Your task to perform on an android device: open chrome privacy settings Image 0: 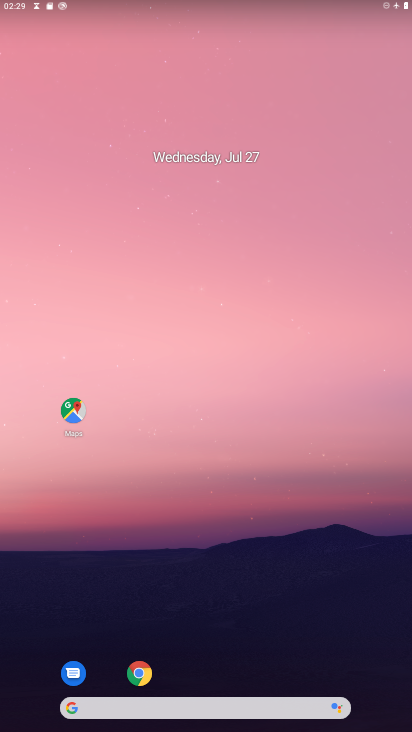
Step 0: drag from (213, 668) to (269, 149)
Your task to perform on an android device: open chrome privacy settings Image 1: 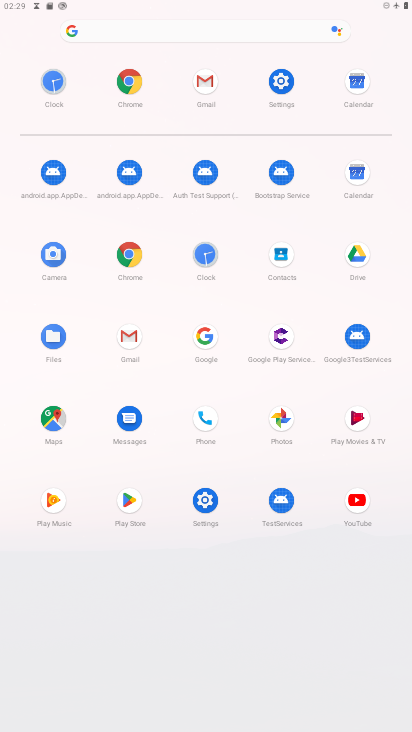
Step 1: click (131, 89)
Your task to perform on an android device: open chrome privacy settings Image 2: 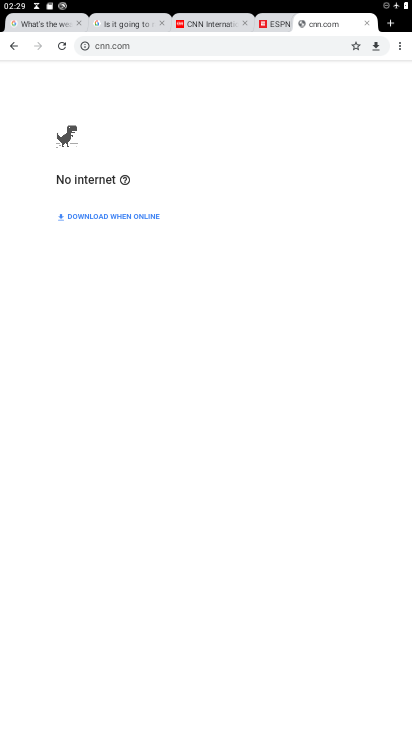
Step 2: click (402, 36)
Your task to perform on an android device: open chrome privacy settings Image 3: 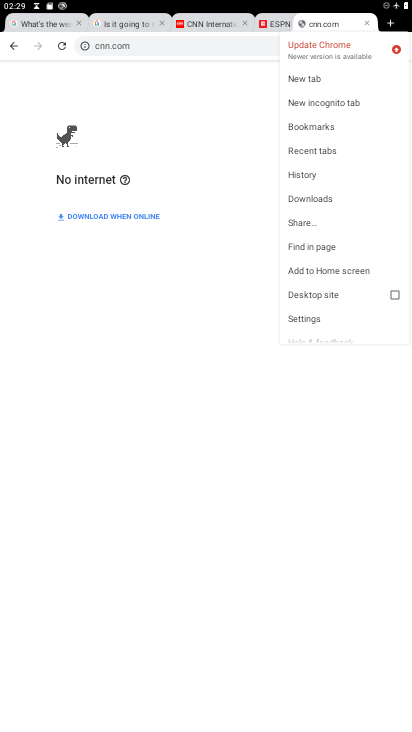
Step 3: click (319, 318)
Your task to perform on an android device: open chrome privacy settings Image 4: 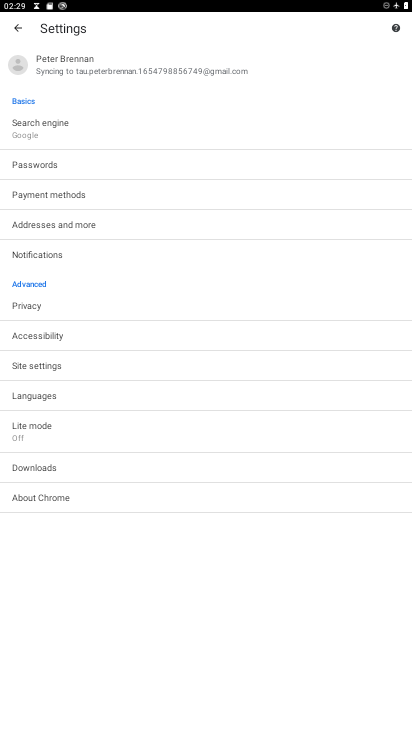
Step 4: click (63, 310)
Your task to perform on an android device: open chrome privacy settings Image 5: 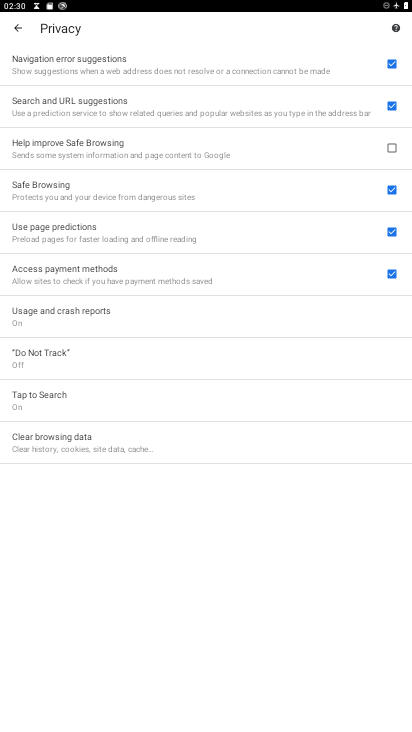
Step 5: task complete